Your task to perform on an android device: allow cookies in the chrome app Image 0: 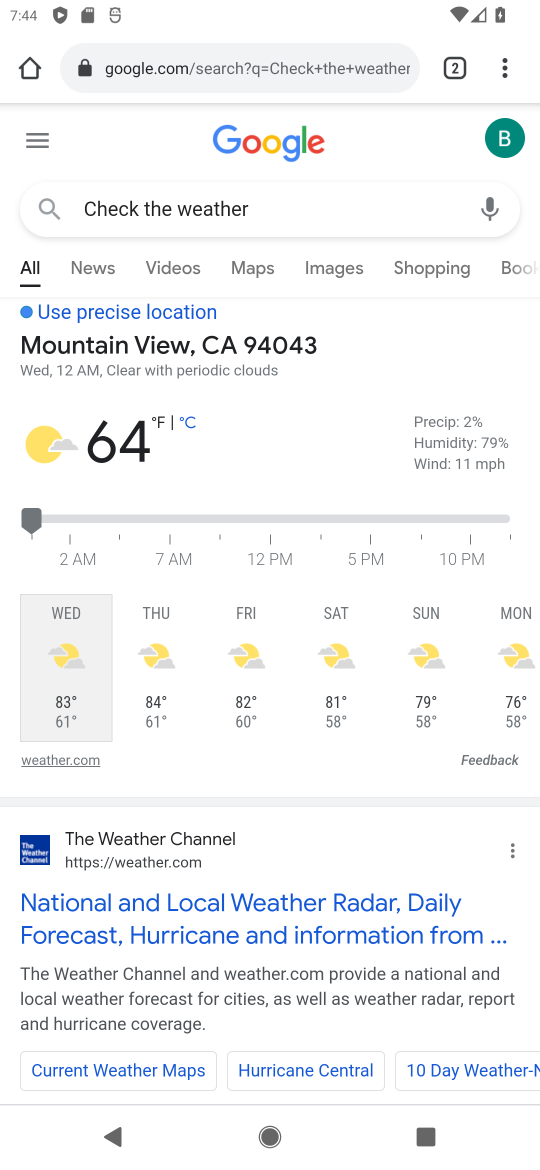
Step 0: click (510, 62)
Your task to perform on an android device: allow cookies in the chrome app Image 1: 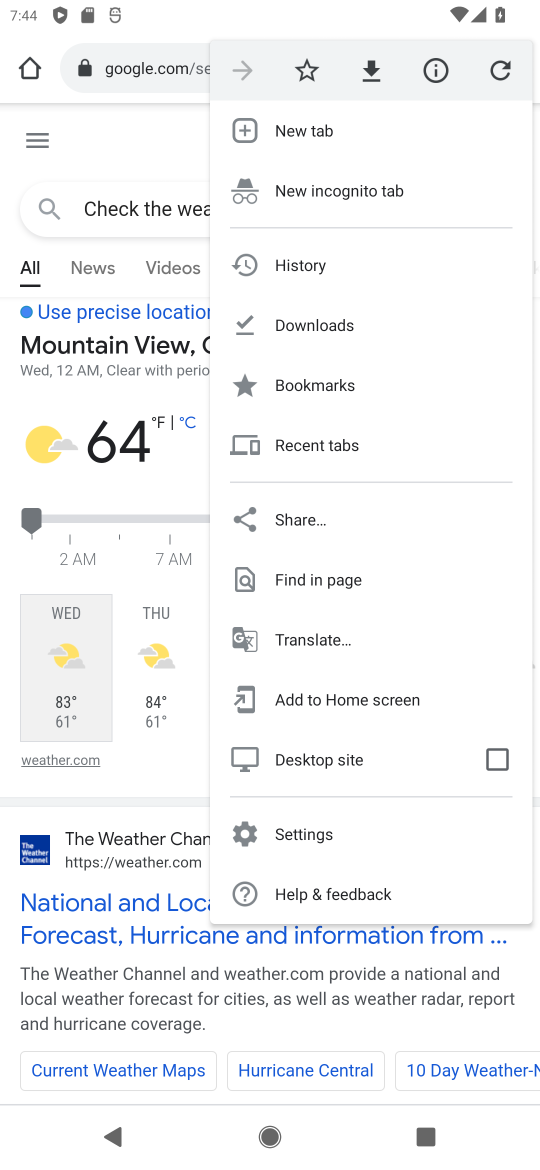
Step 1: click (372, 854)
Your task to perform on an android device: allow cookies in the chrome app Image 2: 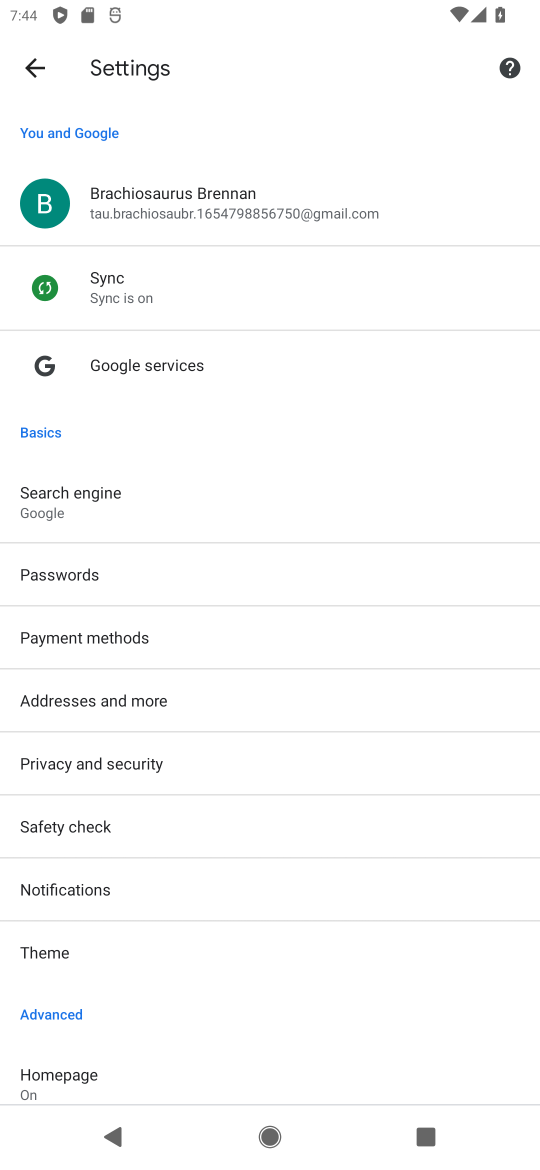
Step 2: drag from (175, 1017) to (121, 468)
Your task to perform on an android device: allow cookies in the chrome app Image 3: 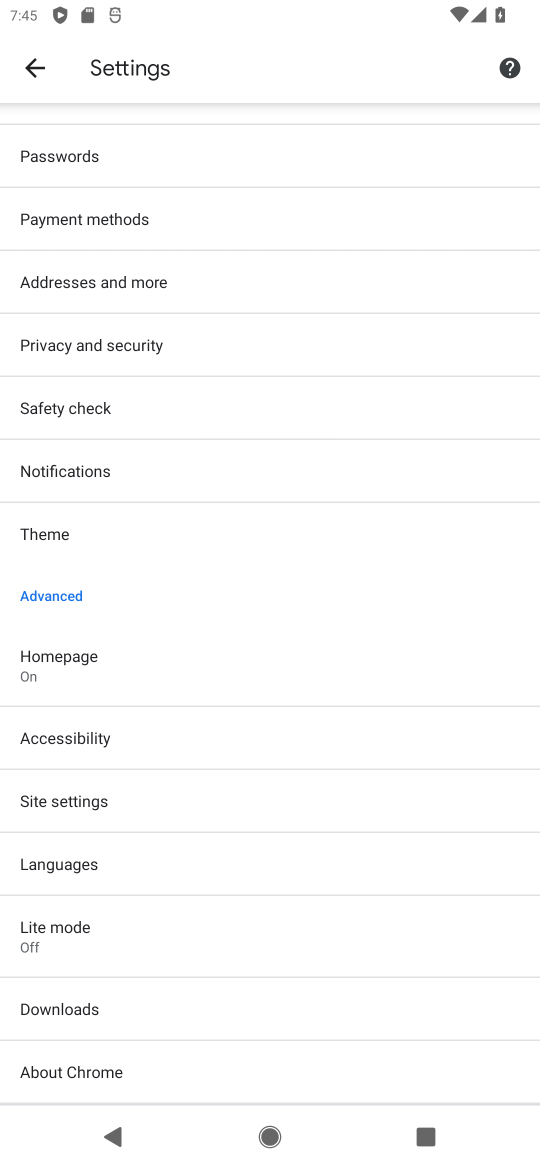
Step 3: click (215, 812)
Your task to perform on an android device: allow cookies in the chrome app Image 4: 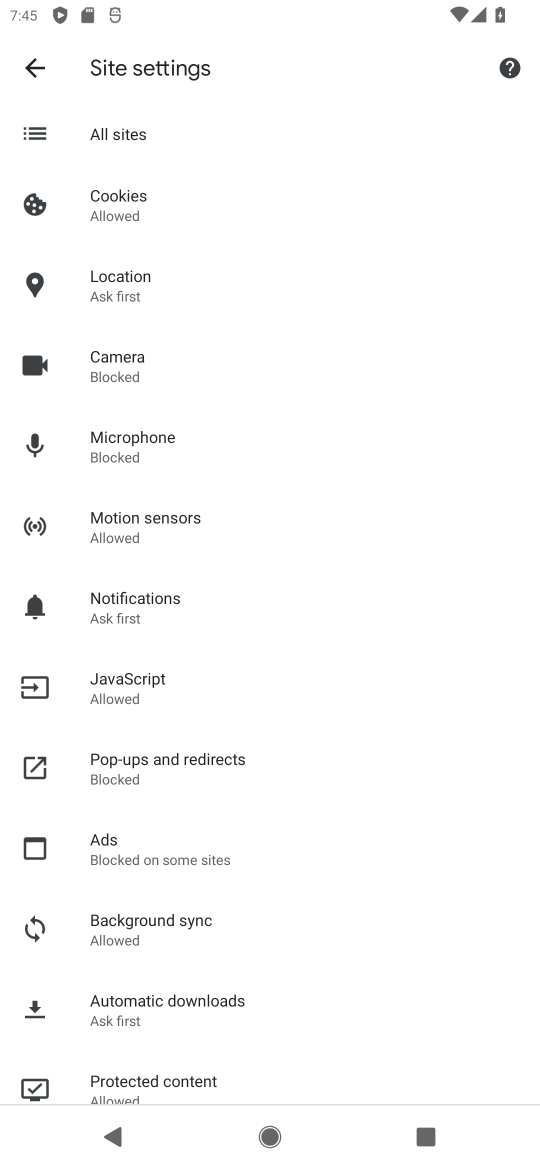
Step 4: click (171, 215)
Your task to perform on an android device: allow cookies in the chrome app Image 5: 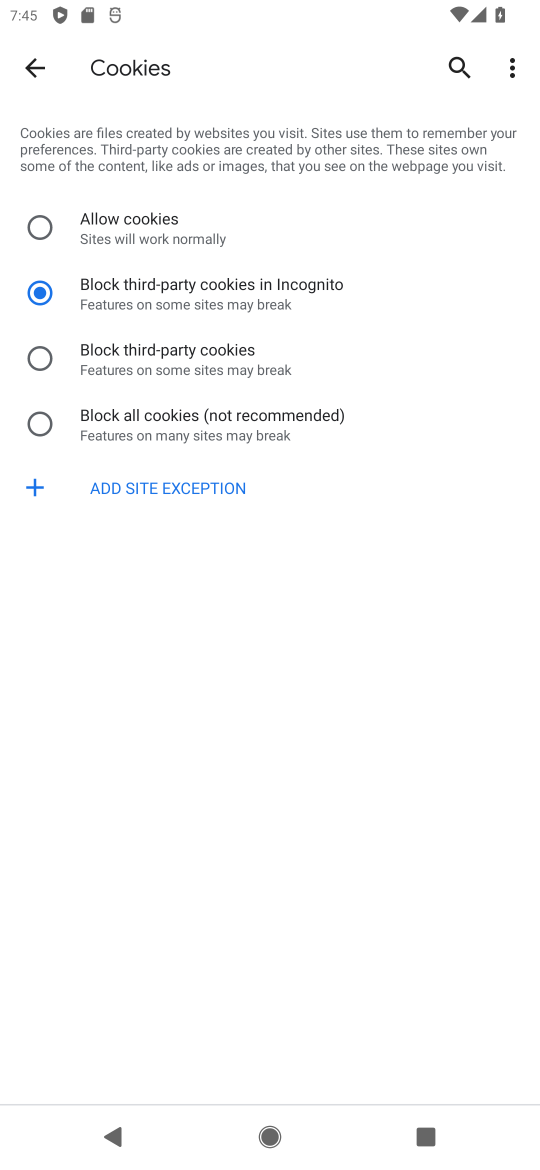
Step 5: click (226, 214)
Your task to perform on an android device: allow cookies in the chrome app Image 6: 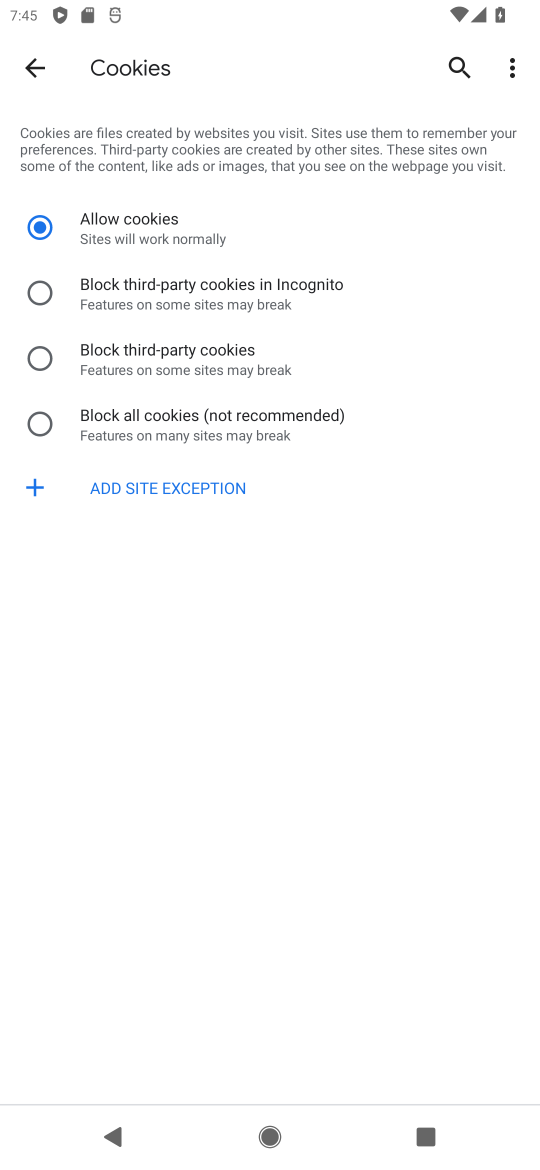
Step 6: task complete